Your task to perform on an android device: delete the emails in spam in the gmail app Image 0: 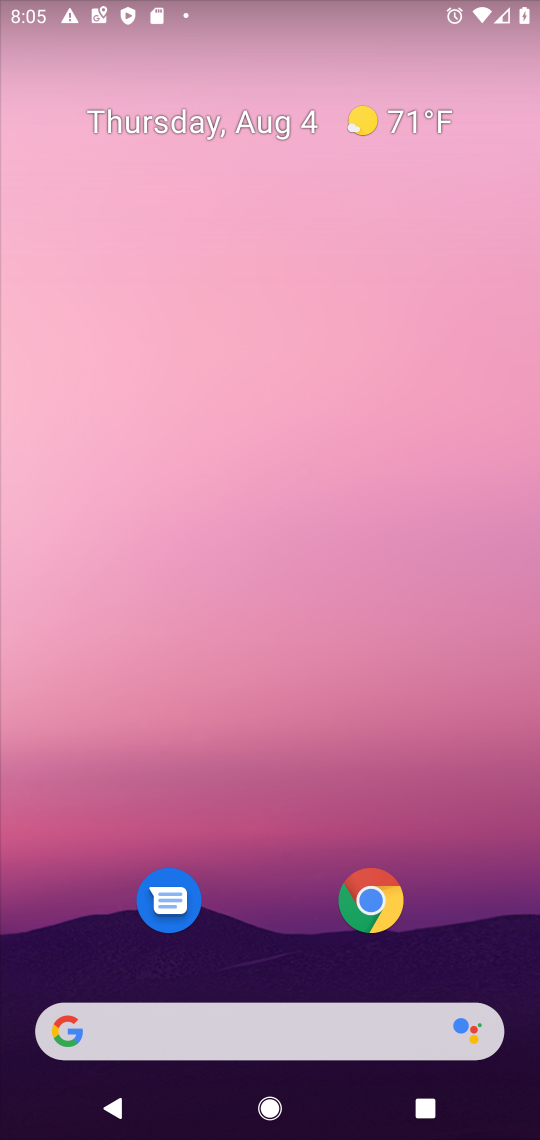
Step 0: drag from (224, 1029) to (235, 262)
Your task to perform on an android device: delete the emails in spam in the gmail app Image 1: 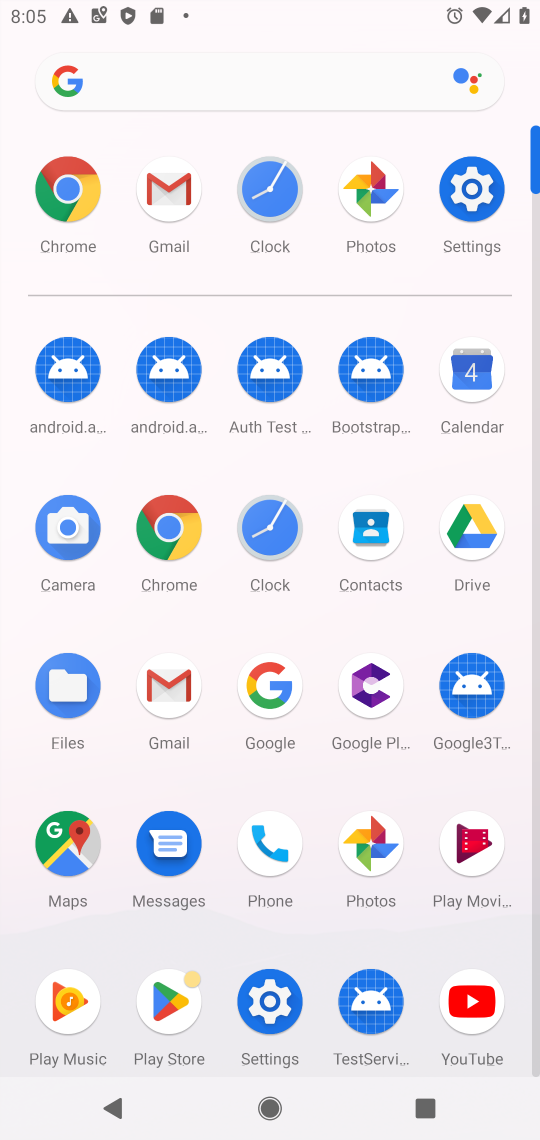
Step 1: click (166, 185)
Your task to perform on an android device: delete the emails in spam in the gmail app Image 2: 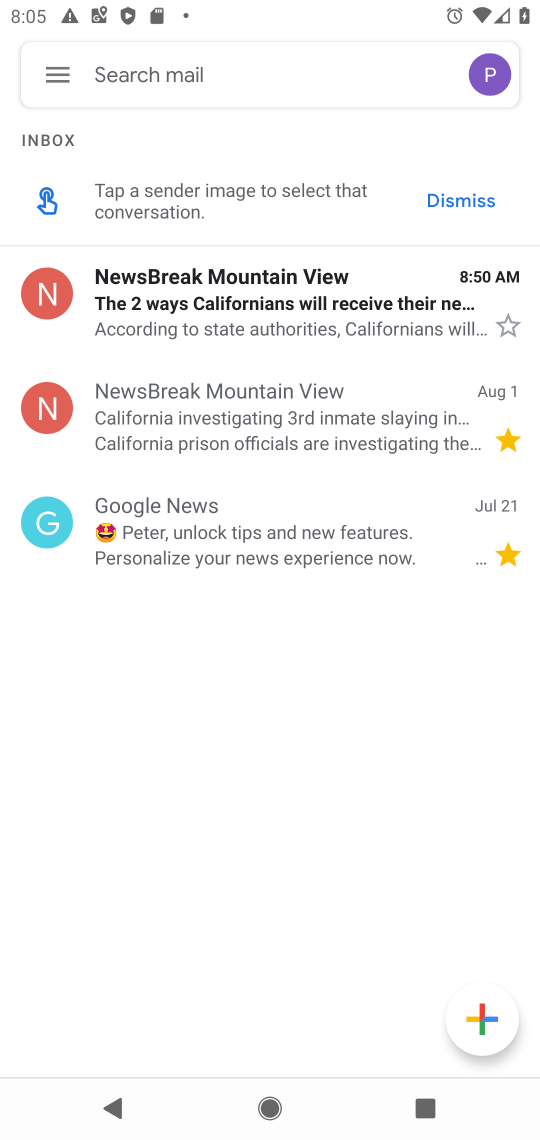
Step 2: click (59, 73)
Your task to perform on an android device: delete the emails in spam in the gmail app Image 3: 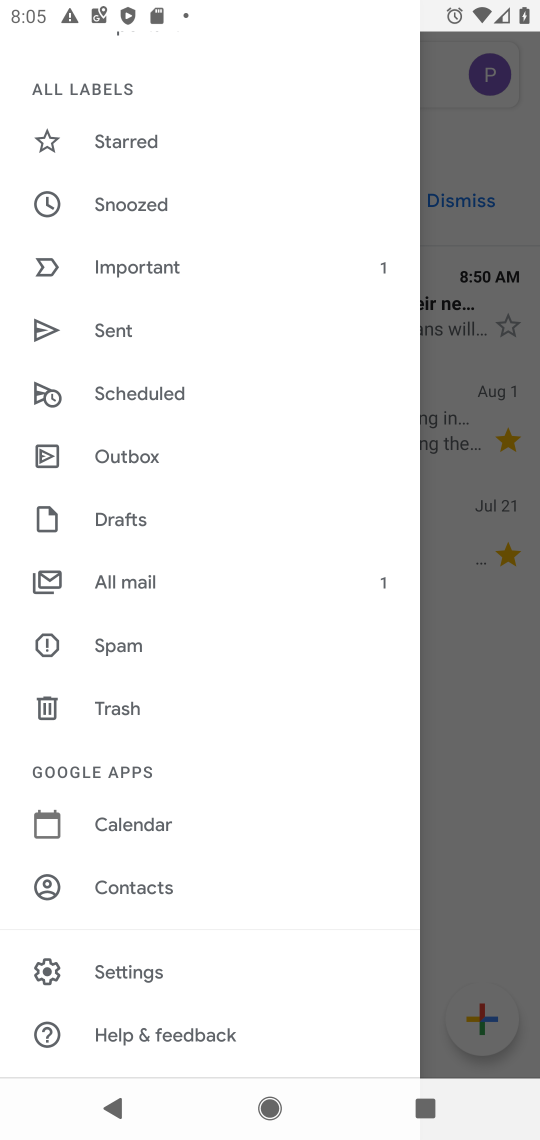
Step 3: click (106, 643)
Your task to perform on an android device: delete the emails in spam in the gmail app Image 4: 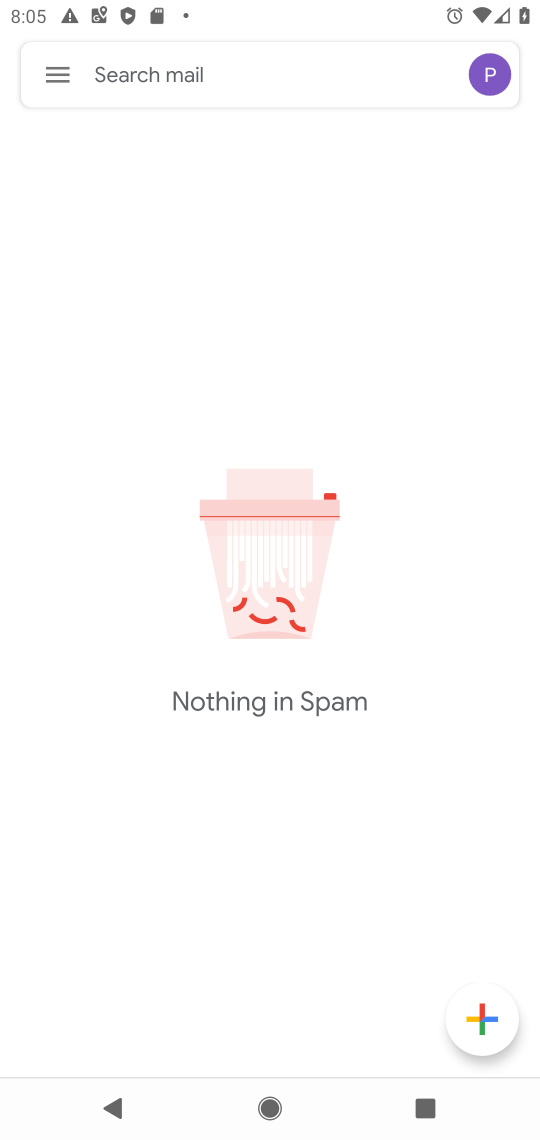
Step 4: task complete